Your task to perform on an android device: turn off location Image 0: 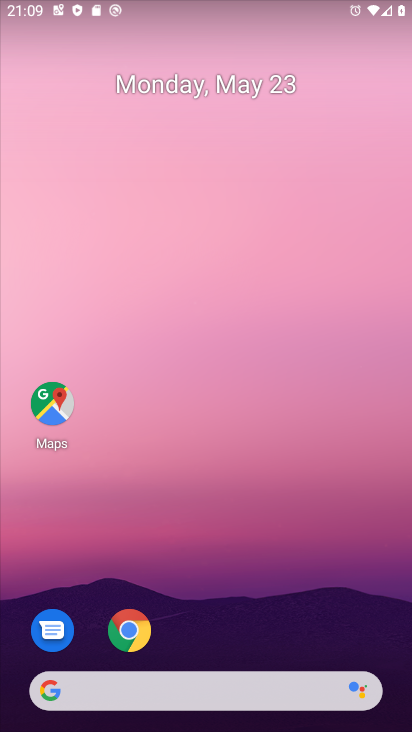
Step 0: drag from (191, 633) to (184, 353)
Your task to perform on an android device: turn off location Image 1: 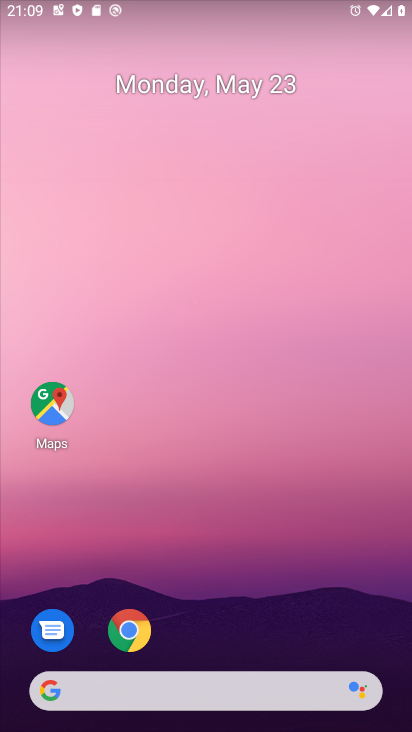
Step 1: drag from (211, 676) to (210, 368)
Your task to perform on an android device: turn off location Image 2: 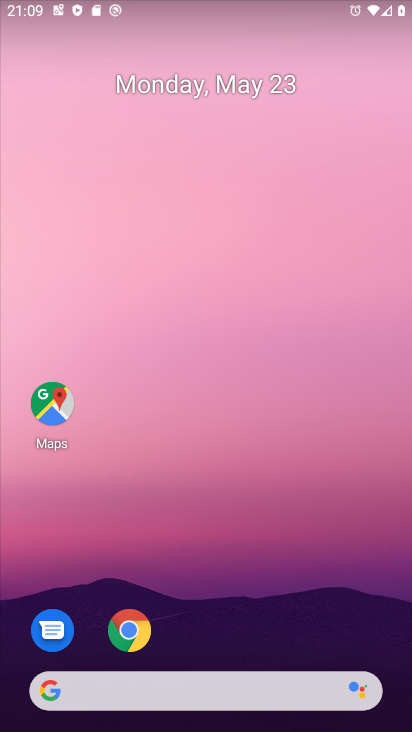
Step 2: drag from (166, 581) to (211, 254)
Your task to perform on an android device: turn off location Image 3: 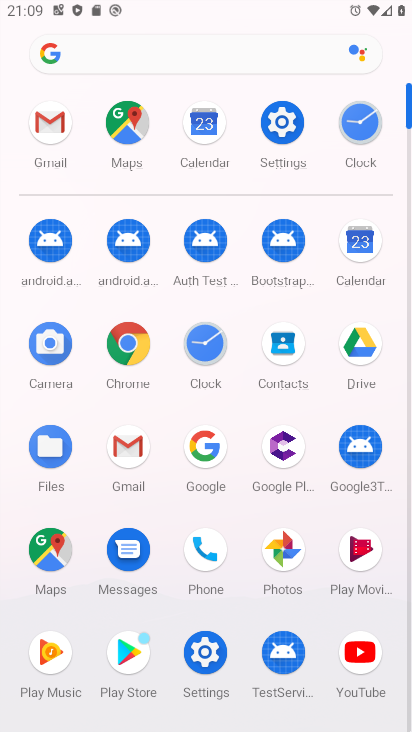
Step 3: click (286, 115)
Your task to perform on an android device: turn off location Image 4: 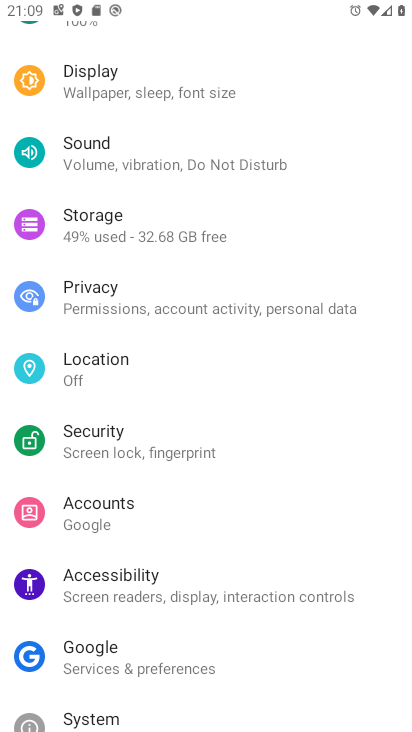
Step 4: click (113, 377)
Your task to perform on an android device: turn off location Image 5: 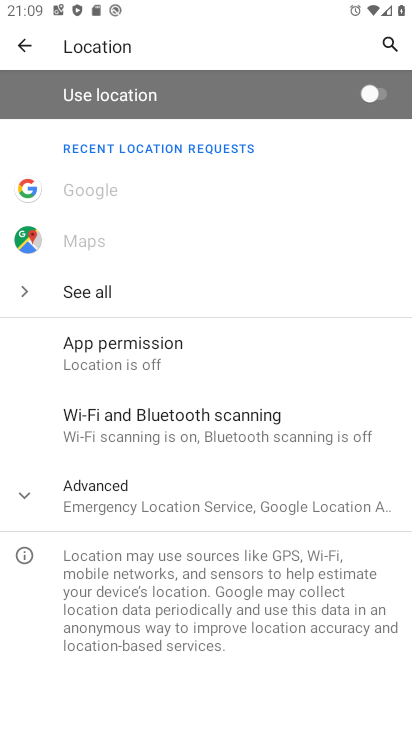
Step 5: task complete